Your task to perform on an android device: Go to display settings Image 0: 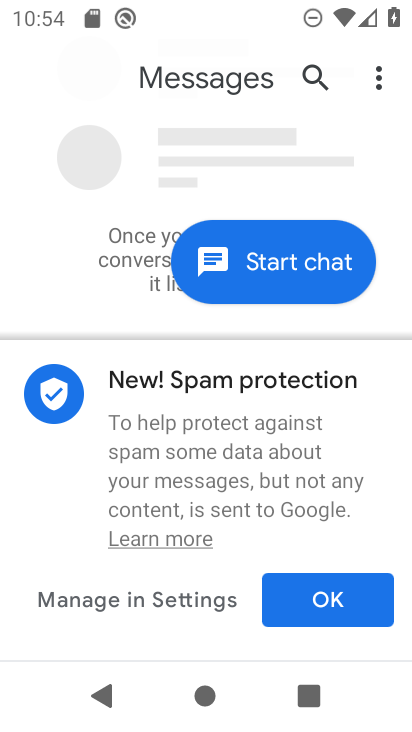
Step 0: press home button
Your task to perform on an android device: Go to display settings Image 1: 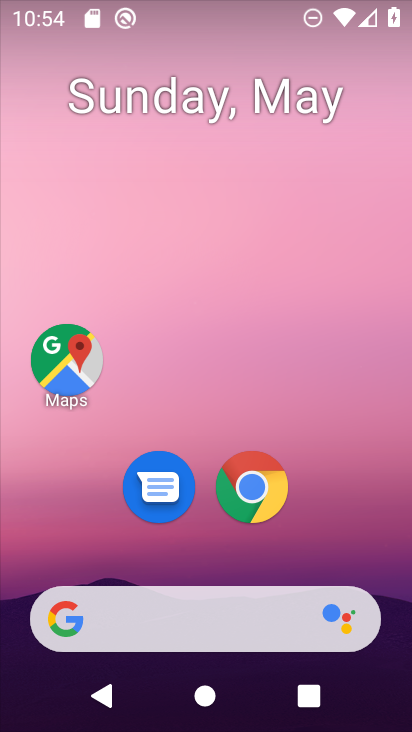
Step 1: drag from (376, 555) to (300, 202)
Your task to perform on an android device: Go to display settings Image 2: 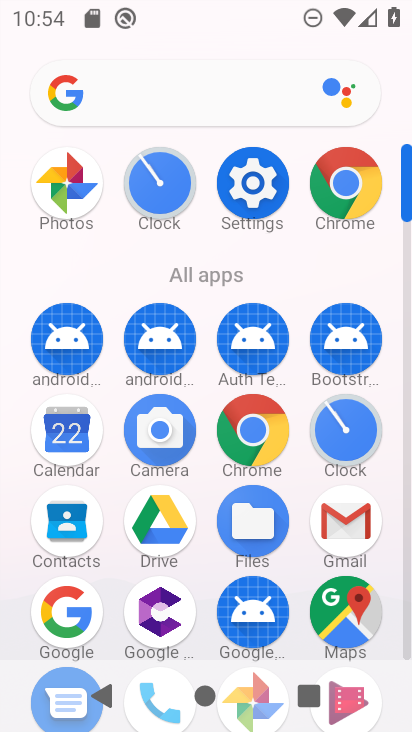
Step 2: click (258, 186)
Your task to perform on an android device: Go to display settings Image 3: 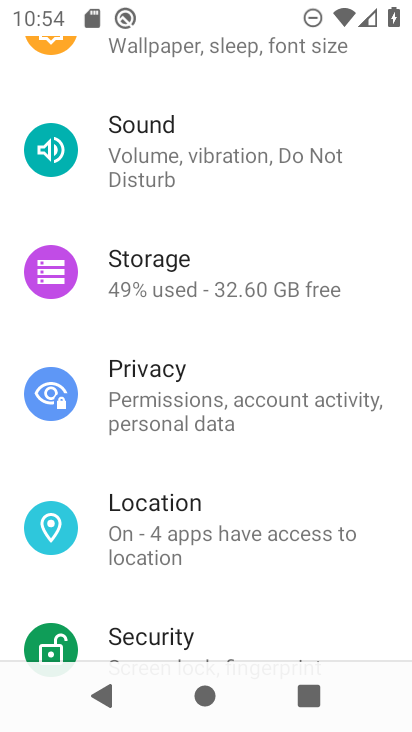
Step 3: drag from (239, 122) to (257, 454)
Your task to perform on an android device: Go to display settings Image 4: 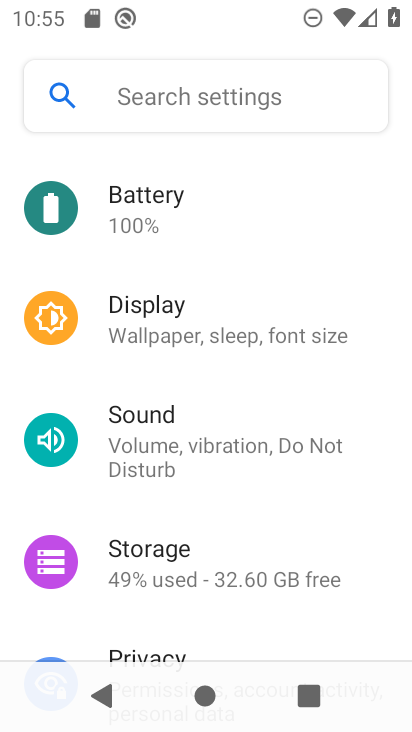
Step 4: click (249, 329)
Your task to perform on an android device: Go to display settings Image 5: 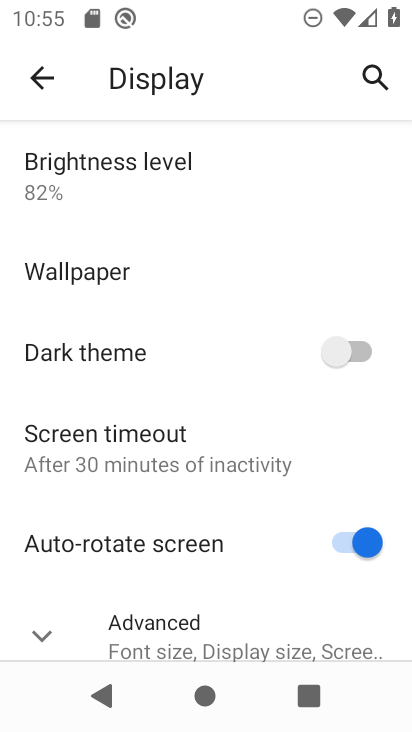
Step 5: task complete